Your task to perform on an android device: refresh tabs in the chrome app Image 0: 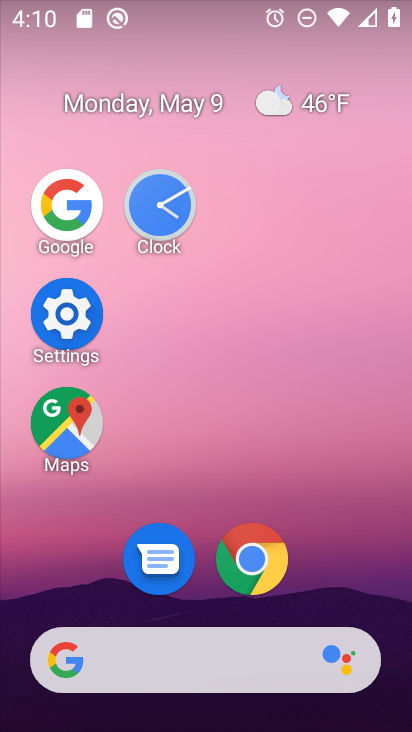
Step 0: click (243, 564)
Your task to perform on an android device: refresh tabs in the chrome app Image 1: 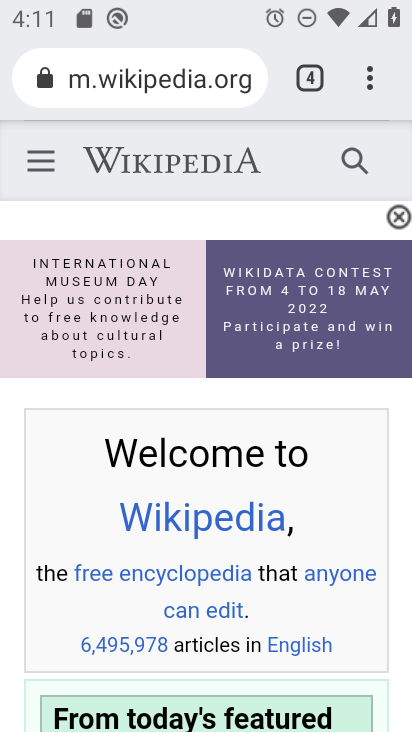
Step 1: click (364, 87)
Your task to perform on an android device: refresh tabs in the chrome app Image 2: 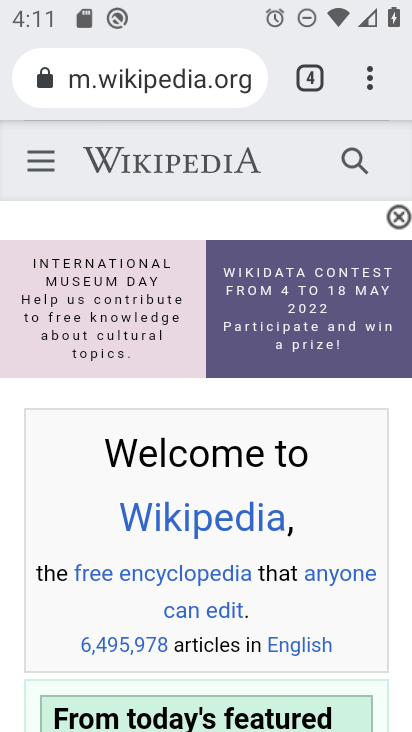
Step 2: click (372, 76)
Your task to perform on an android device: refresh tabs in the chrome app Image 3: 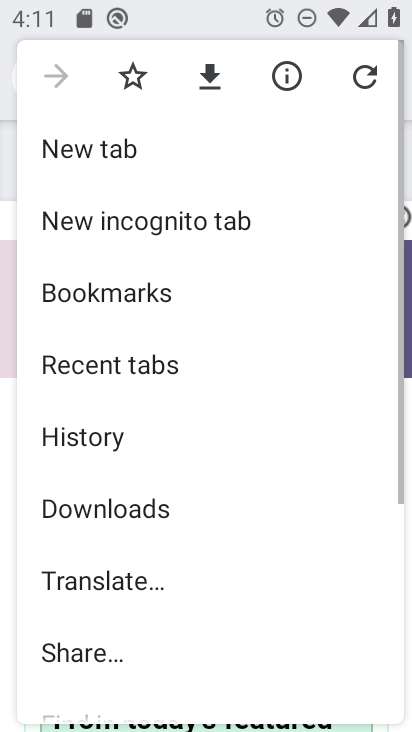
Step 3: click (372, 76)
Your task to perform on an android device: refresh tabs in the chrome app Image 4: 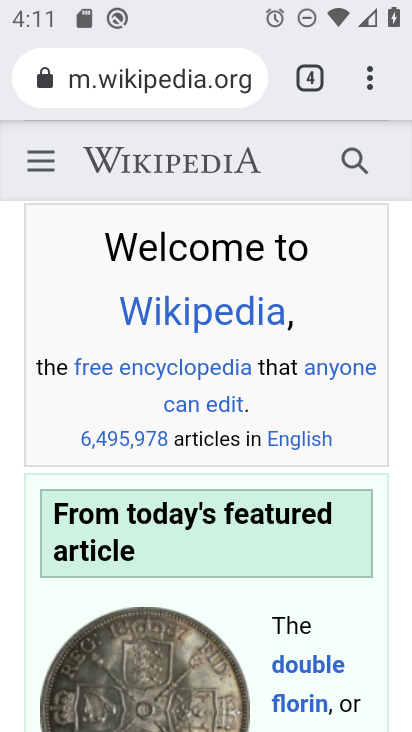
Step 4: task complete